Your task to perform on an android device: Clear the shopping cart on ebay. Add "alienware aurora" to the cart on ebay, then select checkout. Image 0: 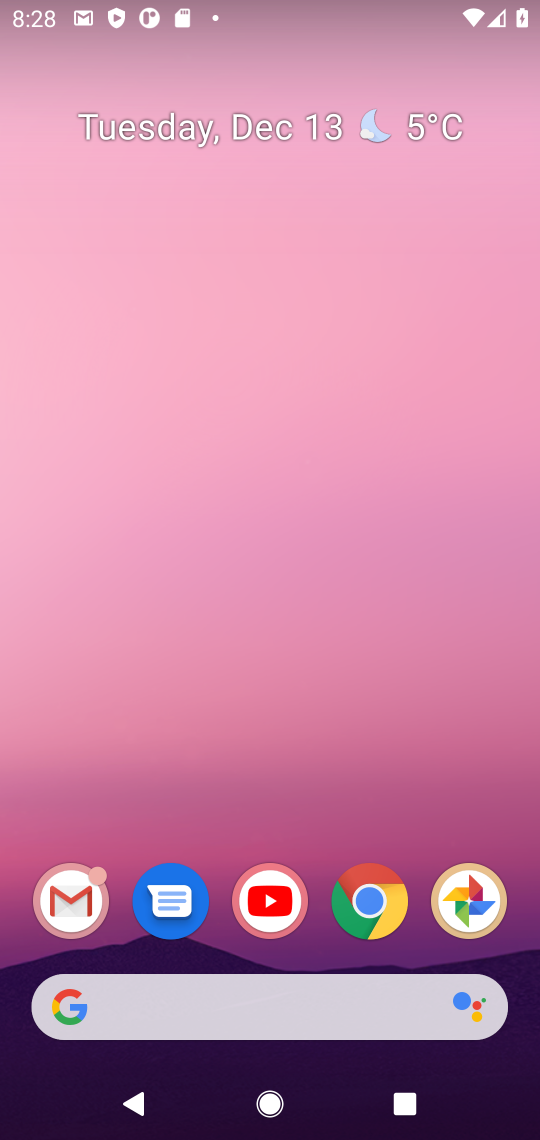
Step 0: click (367, 895)
Your task to perform on an android device: Clear the shopping cart on ebay. Add "alienware aurora" to the cart on ebay, then select checkout. Image 1: 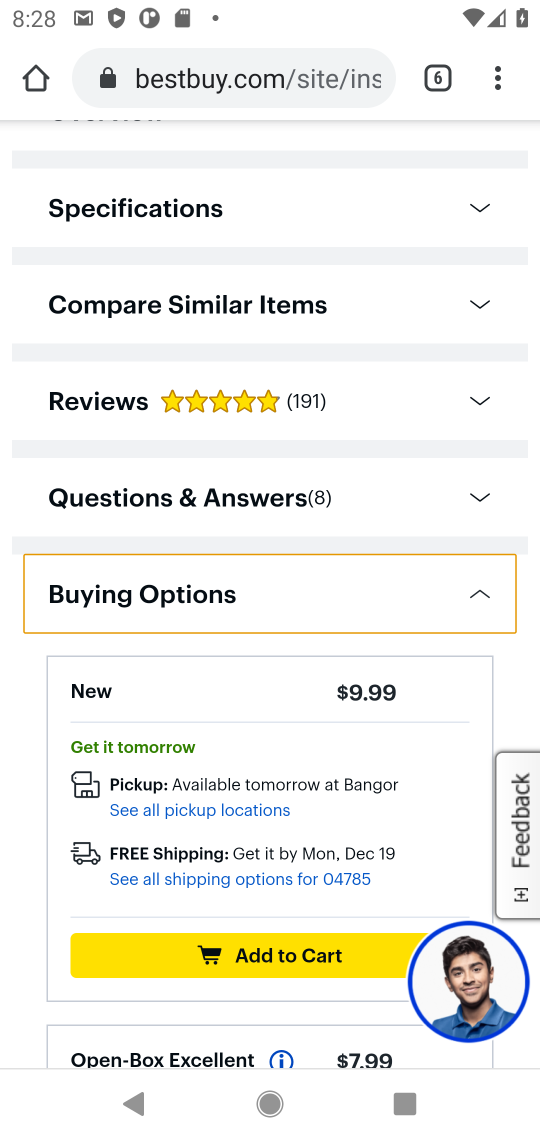
Step 1: click (428, 81)
Your task to perform on an android device: Clear the shopping cart on ebay. Add "alienware aurora" to the cart on ebay, then select checkout. Image 2: 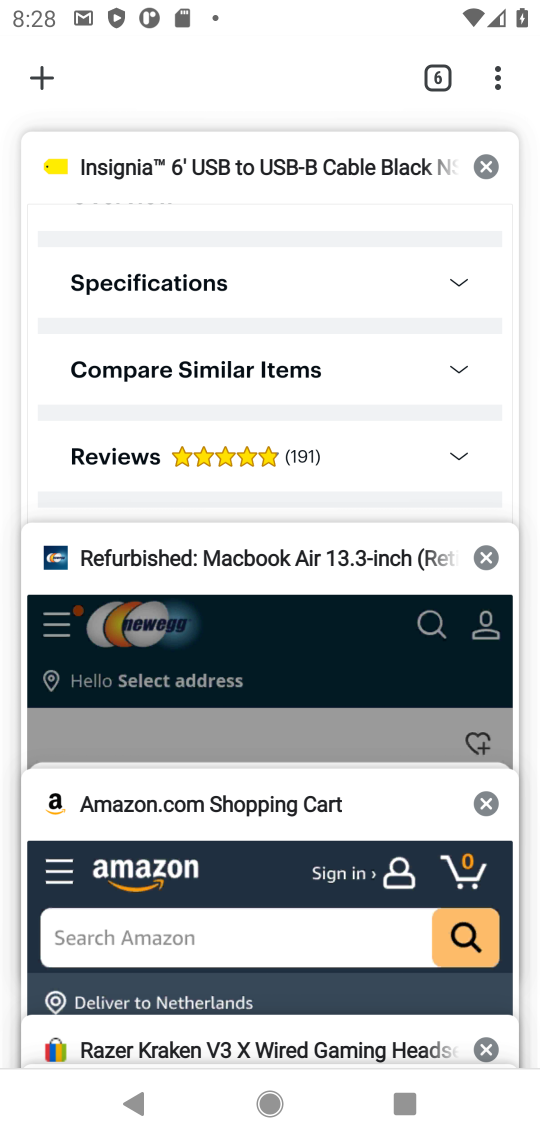
Step 2: click (192, 1039)
Your task to perform on an android device: Clear the shopping cart on ebay. Add "alienware aurora" to the cart on ebay, then select checkout. Image 3: 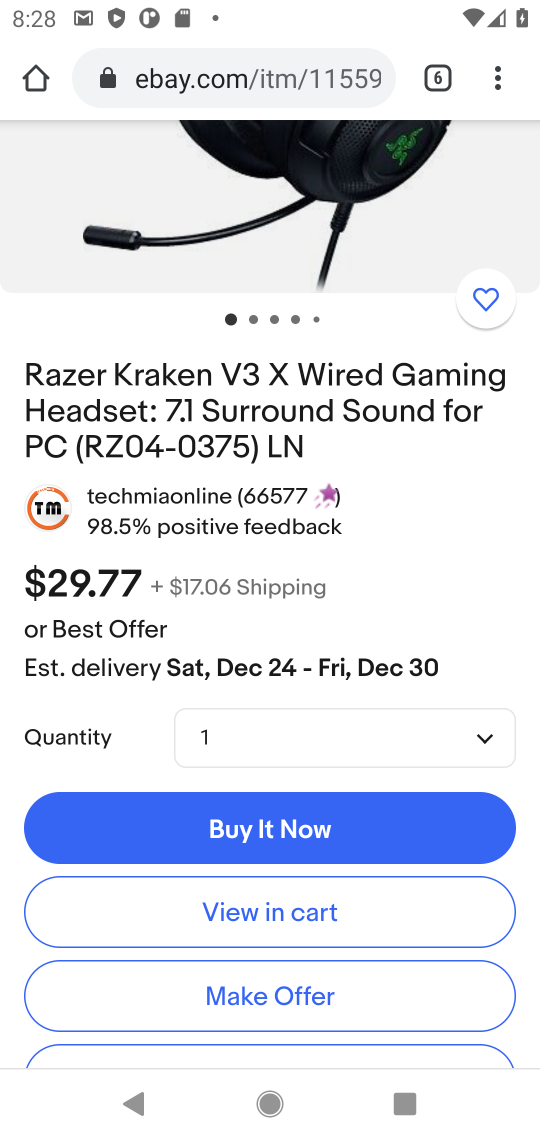
Step 3: click (294, 912)
Your task to perform on an android device: Clear the shopping cart on ebay. Add "alienware aurora" to the cart on ebay, then select checkout. Image 4: 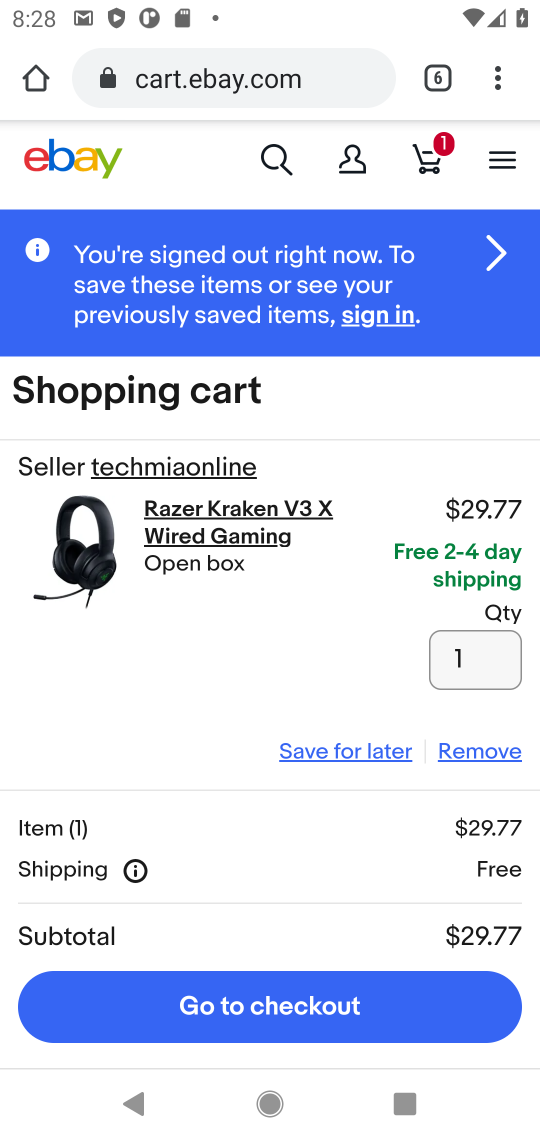
Step 4: click (471, 750)
Your task to perform on an android device: Clear the shopping cart on ebay. Add "alienware aurora" to the cart on ebay, then select checkout. Image 5: 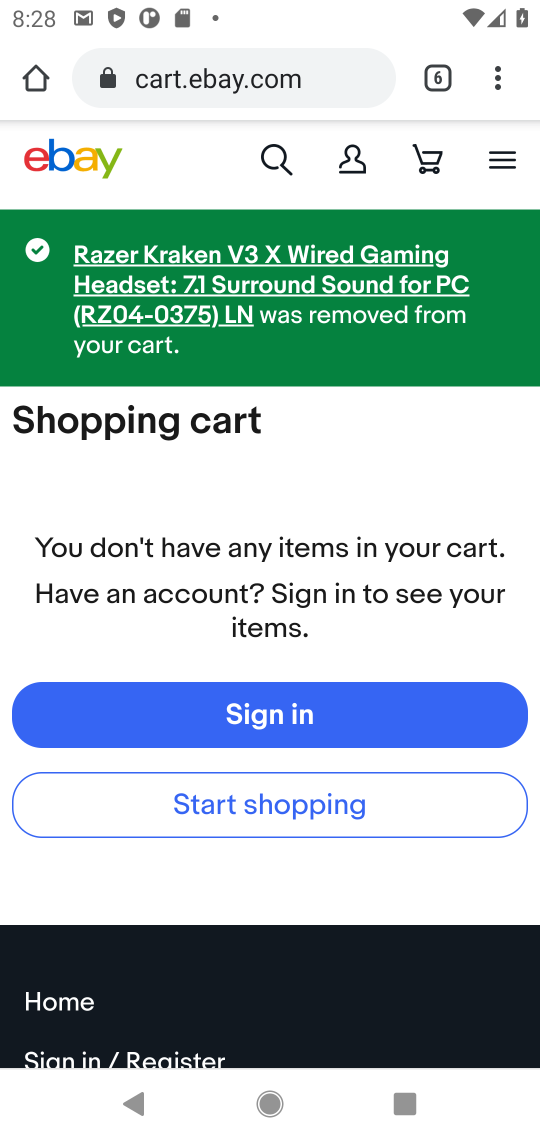
Step 5: click (273, 152)
Your task to perform on an android device: Clear the shopping cart on ebay. Add "alienware aurora" to the cart on ebay, then select checkout. Image 6: 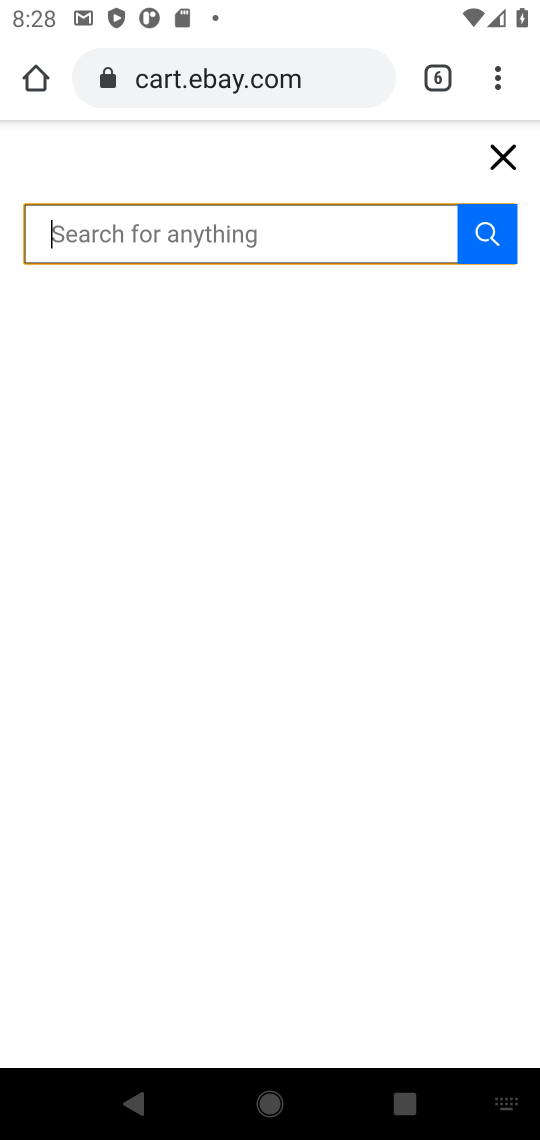
Step 6: type "alienware aurora"
Your task to perform on an android device: Clear the shopping cart on ebay. Add "alienware aurora" to the cart on ebay, then select checkout. Image 7: 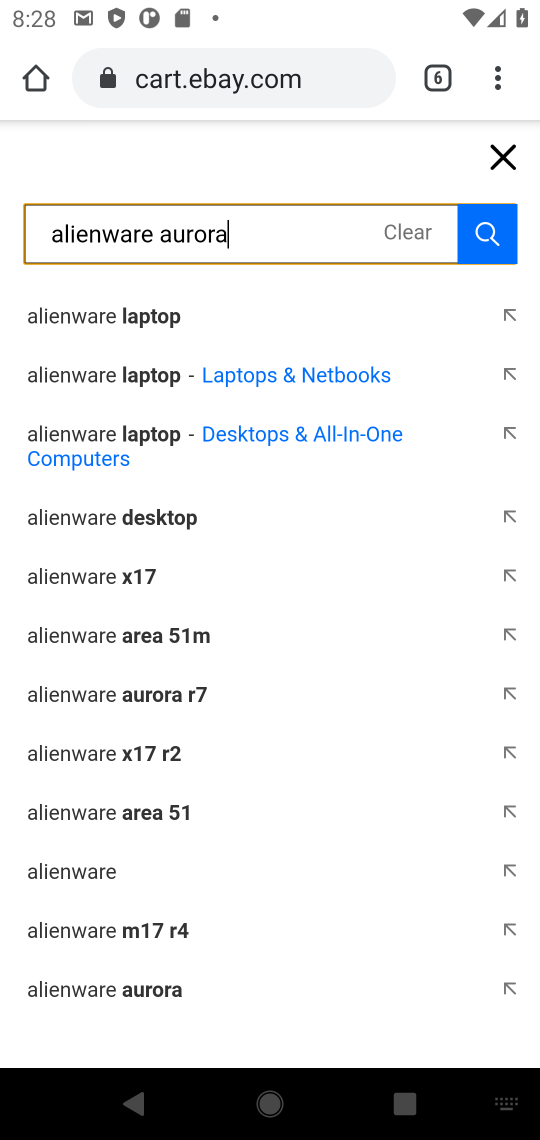
Step 7: click (484, 250)
Your task to perform on an android device: Clear the shopping cart on ebay. Add "alienware aurora" to the cart on ebay, then select checkout. Image 8: 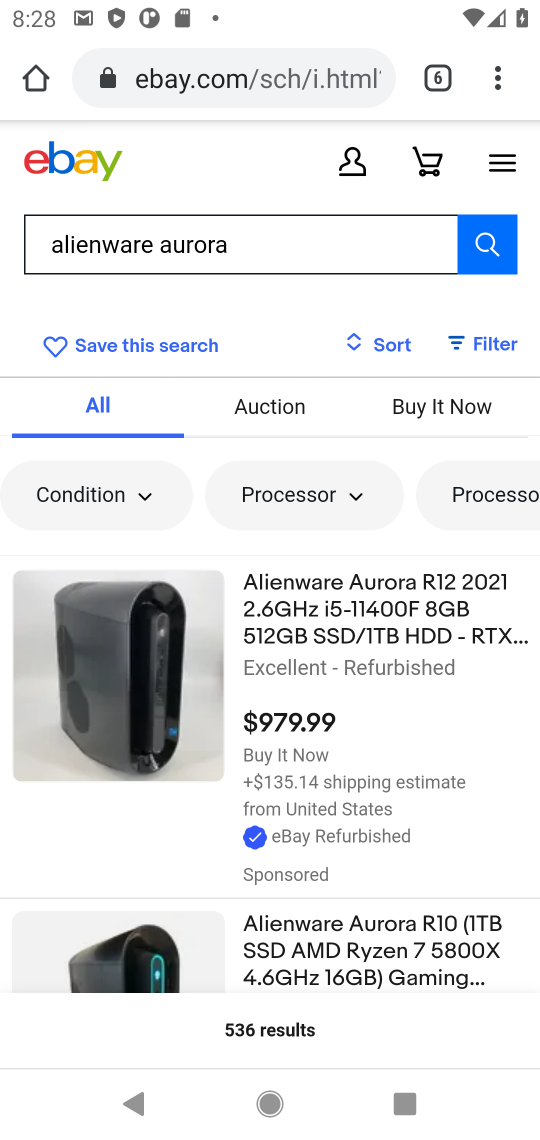
Step 8: click (326, 602)
Your task to perform on an android device: Clear the shopping cart on ebay. Add "alienware aurora" to the cart on ebay, then select checkout. Image 9: 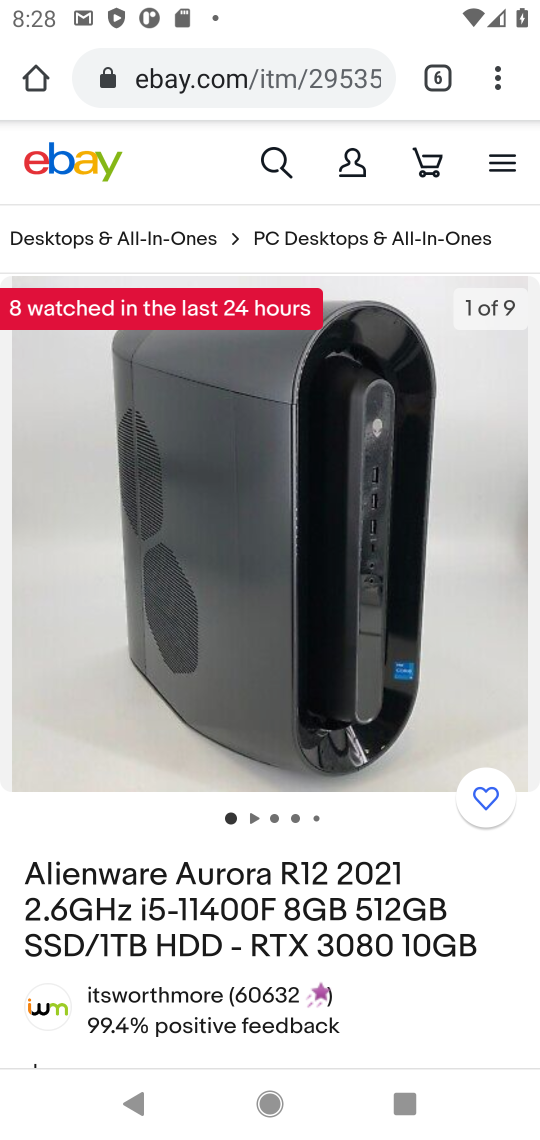
Step 9: drag from (287, 1024) to (362, 525)
Your task to perform on an android device: Clear the shopping cart on ebay. Add "alienware aurora" to the cart on ebay, then select checkout. Image 10: 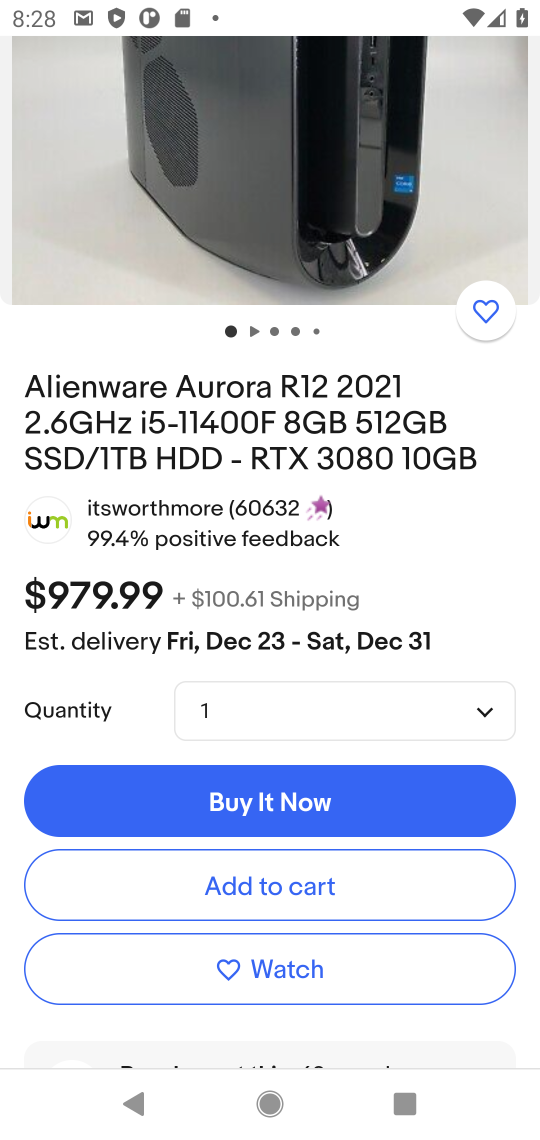
Step 10: click (297, 892)
Your task to perform on an android device: Clear the shopping cart on ebay. Add "alienware aurora" to the cart on ebay, then select checkout. Image 11: 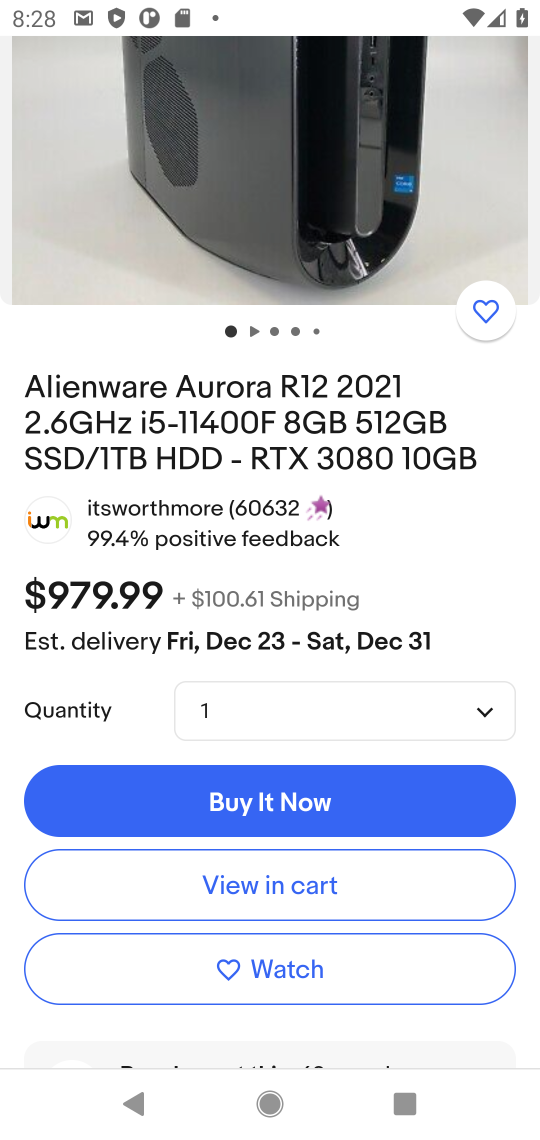
Step 11: task complete